Your task to perform on an android device: toggle wifi Image 0: 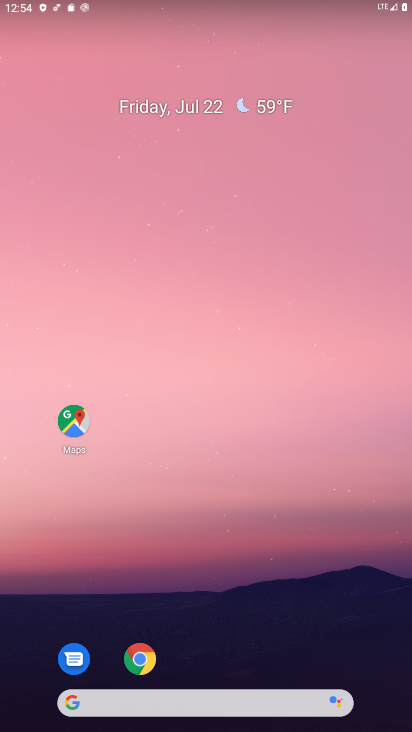
Step 0: drag from (217, 634) to (220, 185)
Your task to perform on an android device: toggle wifi Image 1: 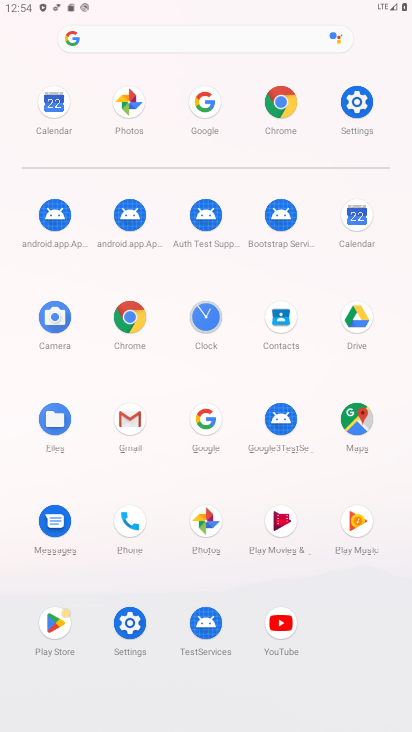
Step 1: click (336, 114)
Your task to perform on an android device: toggle wifi Image 2: 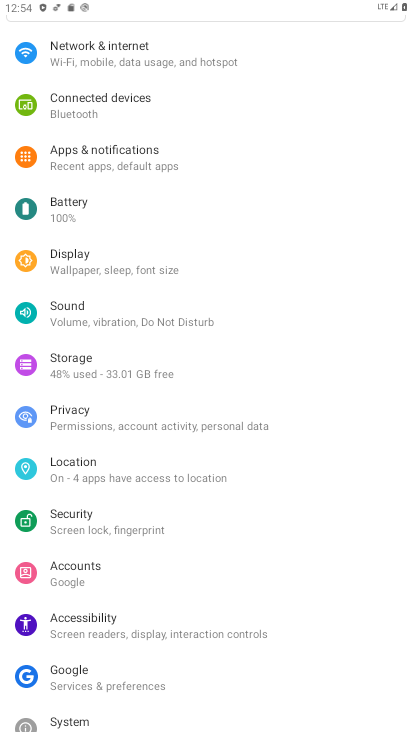
Step 2: click (137, 58)
Your task to perform on an android device: toggle wifi Image 3: 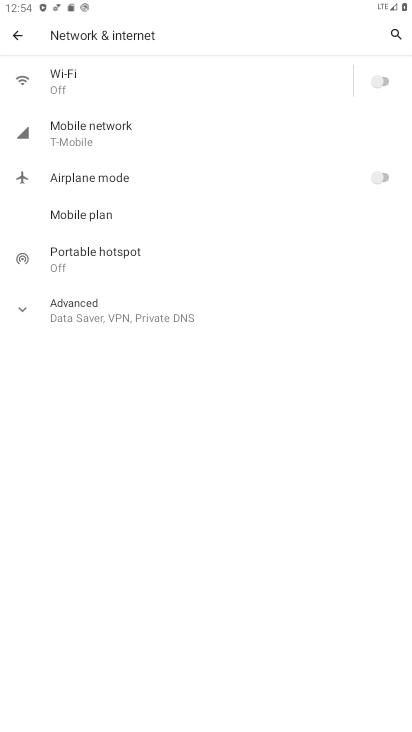
Step 3: click (385, 89)
Your task to perform on an android device: toggle wifi Image 4: 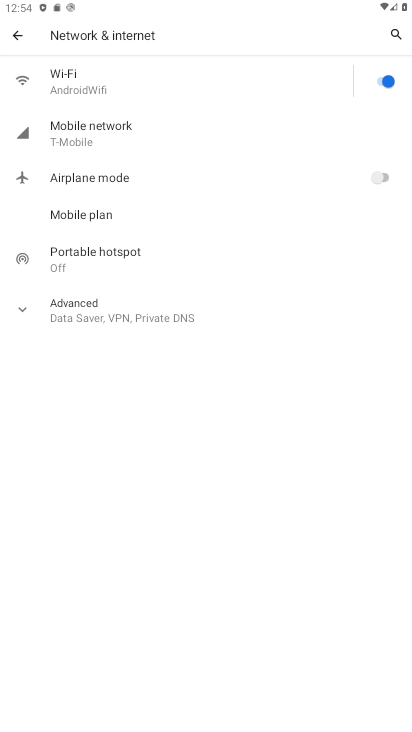
Step 4: task complete